Your task to perform on an android device: Search for pizza restaurants on Maps Image 0: 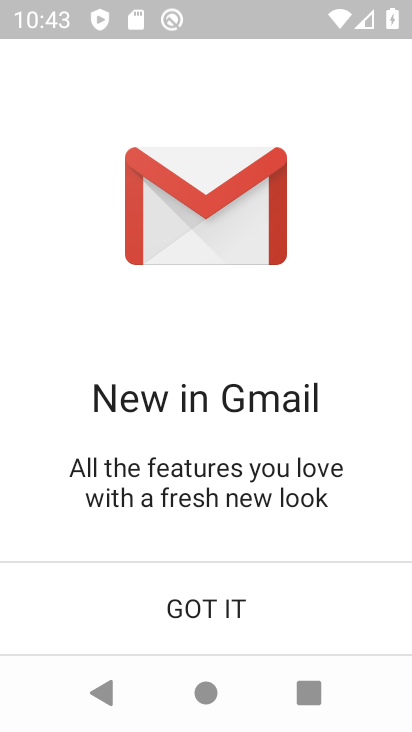
Step 0: press home button
Your task to perform on an android device: Search for pizza restaurants on Maps Image 1: 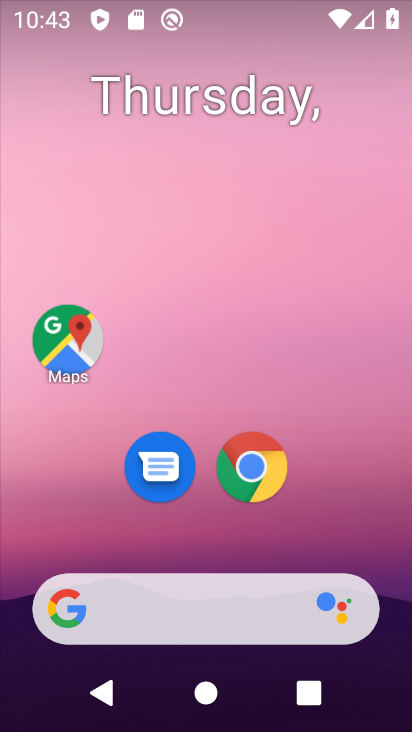
Step 1: type "pizza restaurants "
Your task to perform on an android device: Search for pizza restaurants on Maps Image 2: 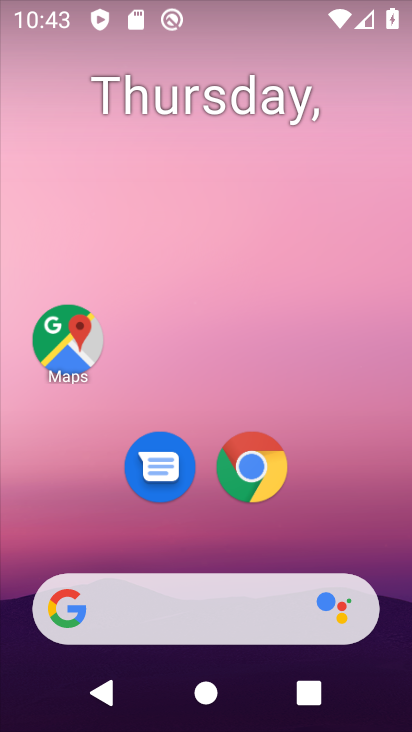
Step 2: click (61, 342)
Your task to perform on an android device: Search for pizza restaurants on Maps Image 3: 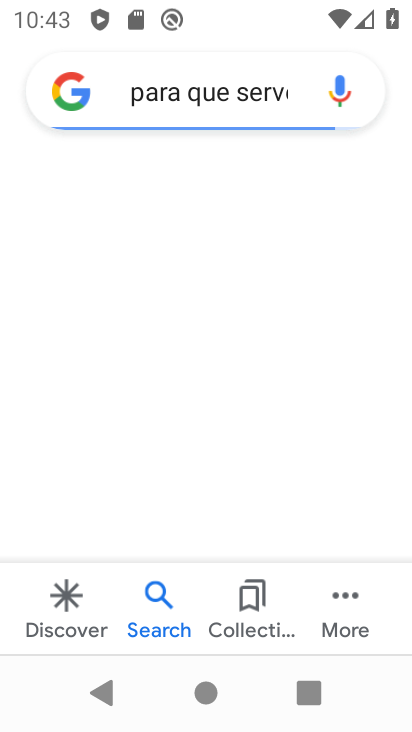
Step 3: click (240, 81)
Your task to perform on an android device: Search for pizza restaurants on Maps Image 4: 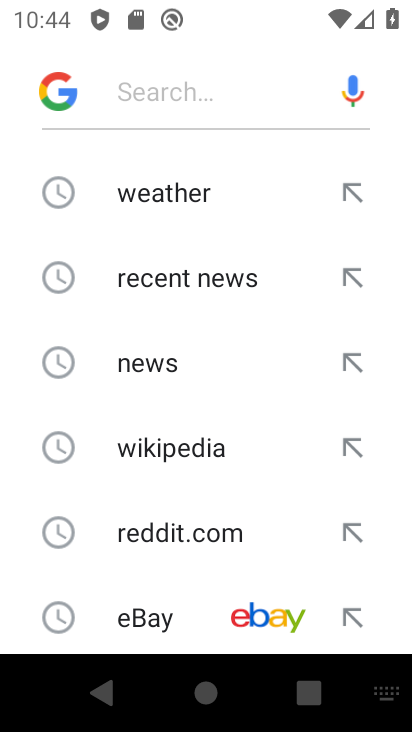
Step 4: type "pizza restaurants "
Your task to perform on an android device: Search for pizza restaurants on Maps Image 5: 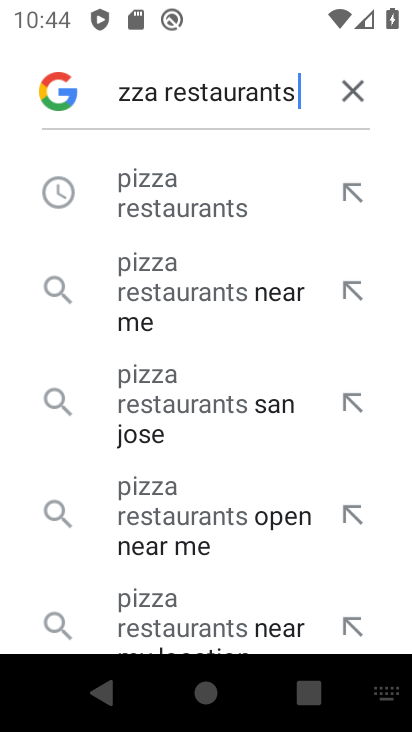
Step 5: click (225, 214)
Your task to perform on an android device: Search for pizza restaurants on Maps Image 6: 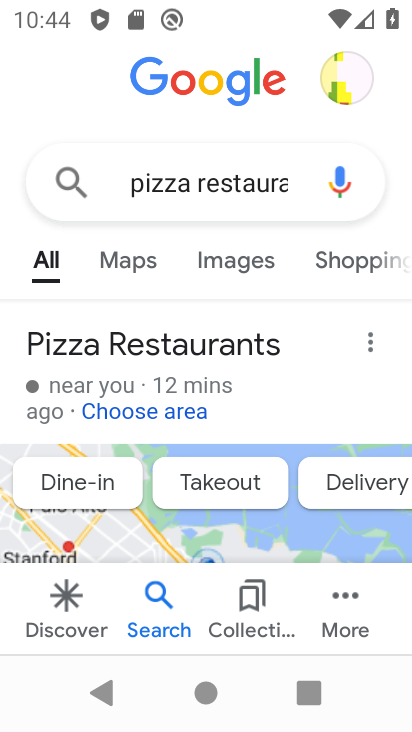
Step 6: task complete